Your task to perform on an android device: Open Reddit.com Image 0: 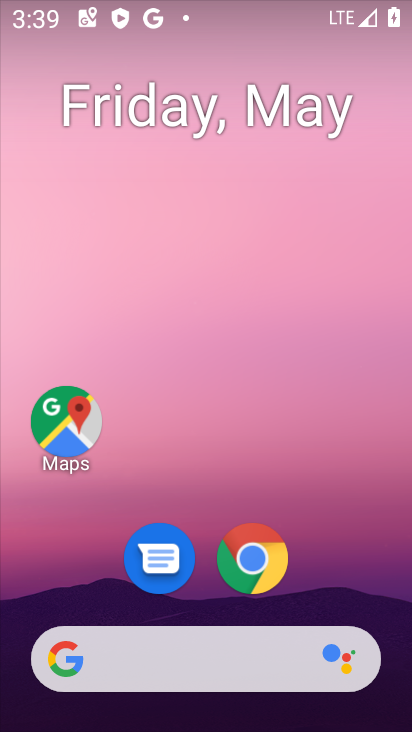
Step 0: press home button
Your task to perform on an android device: Open Reddit.com Image 1: 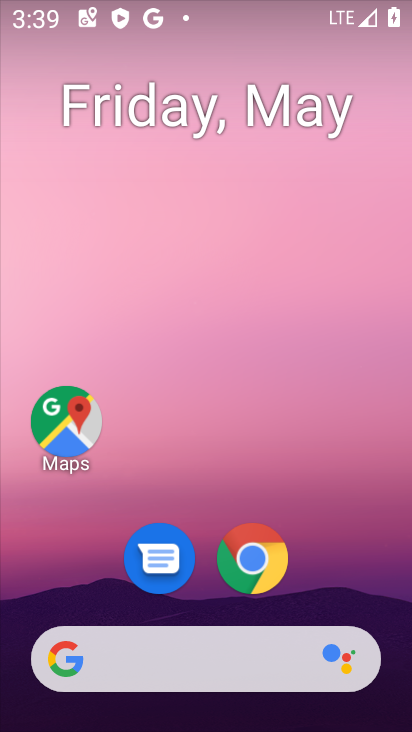
Step 1: click (269, 559)
Your task to perform on an android device: Open Reddit.com Image 2: 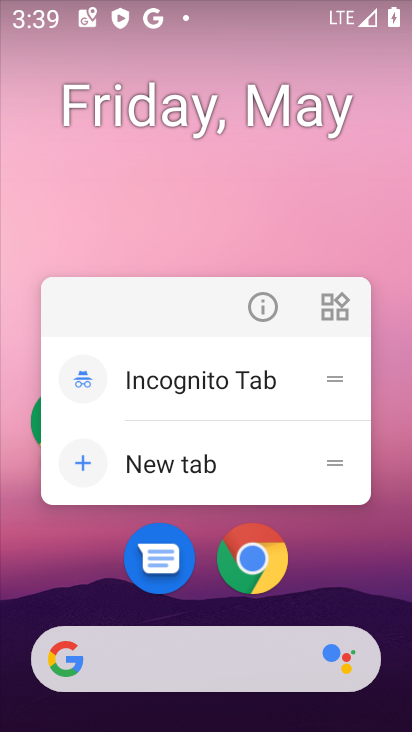
Step 2: click (250, 563)
Your task to perform on an android device: Open Reddit.com Image 3: 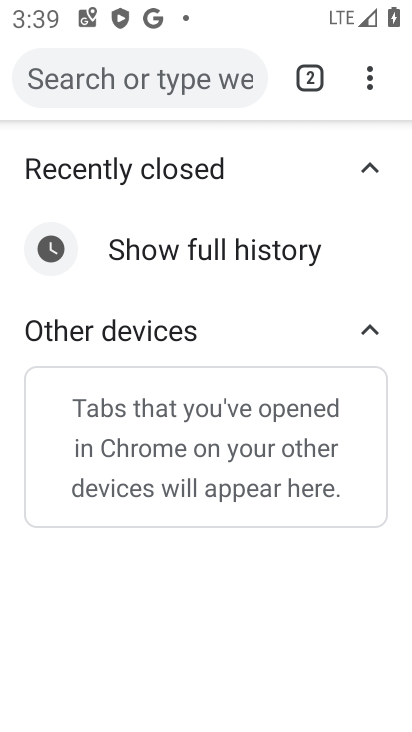
Step 3: drag from (370, 87) to (206, 146)
Your task to perform on an android device: Open Reddit.com Image 4: 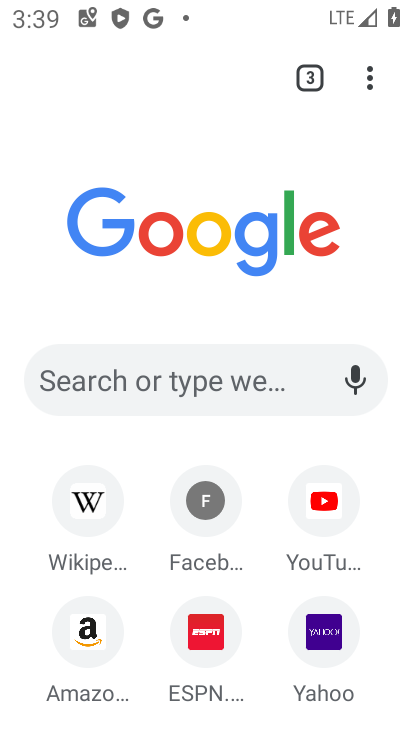
Step 4: click (151, 373)
Your task to perform on an android device: Open Reddit.com Image 5: 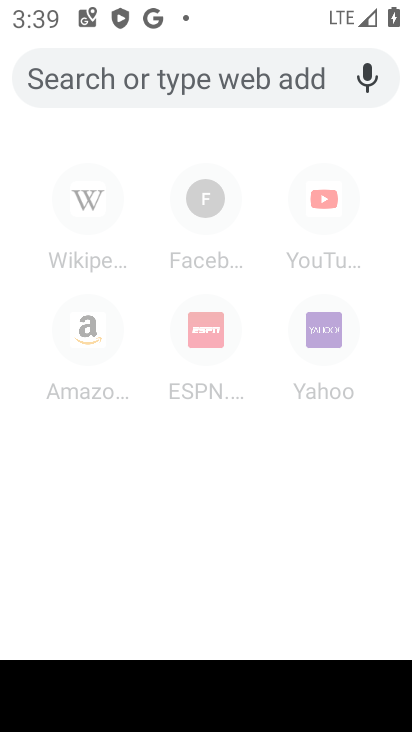
Step 5: type "reddit.com"
Your task to perform on an android device: Open Reddit.com Image 6: 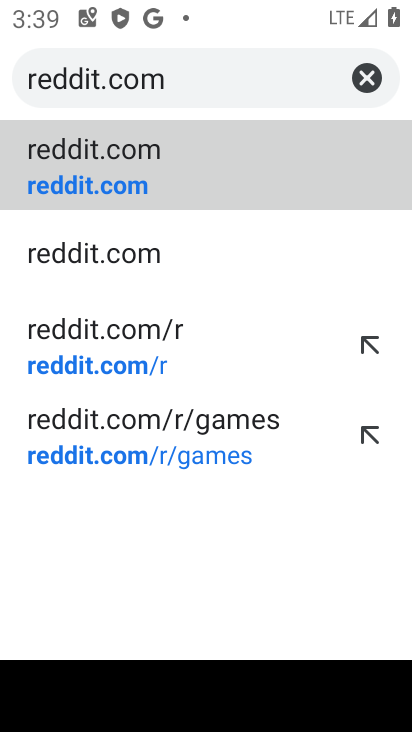
Step 6: click (66, 183)
Your task to perform on an android device: Open Reddit.com Image 7: 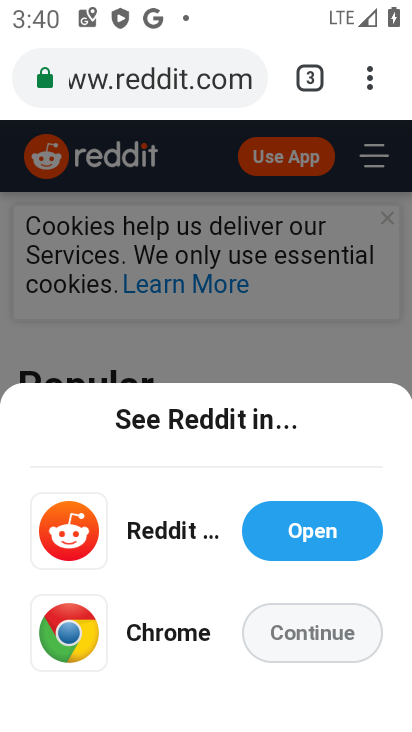
Step 7: task complete